Your task to perform on an android device: Open the calendar app, open the side menu, and click the "Day" option Image 0: 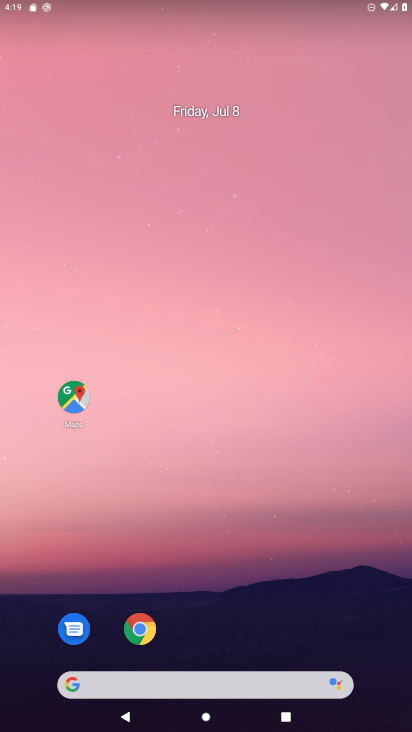
Step 0: drag from (271, 636) to (171, 42)
Your task to perform on an android device: Open the calendar app, open the side menu, and click the "Day" option Image 1: 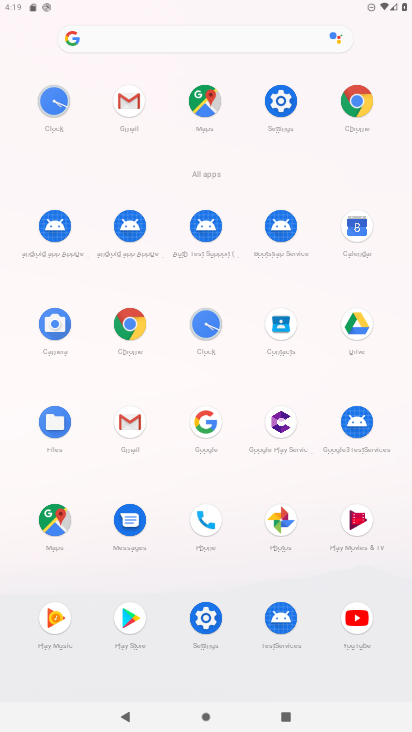
Step 1: click (280, 345)
Your task to perform on an android device: Open the calendar app, open the side menu, and click the "Day" option Image 2: 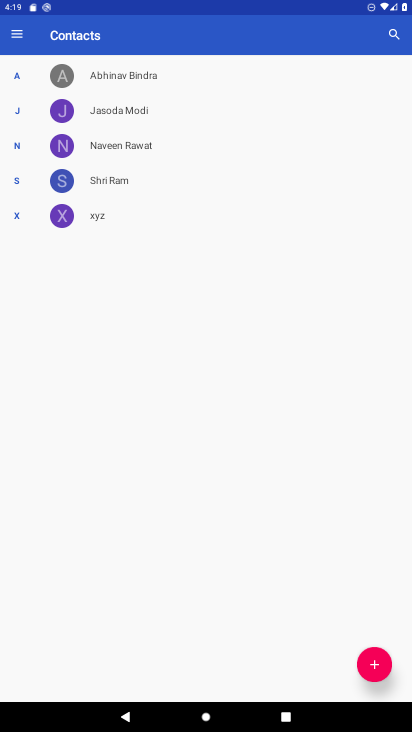
Step 2: press home button
Your task to perform on an android device: Open the calendar app, open the side menu, and click the "Day" option Image 3: 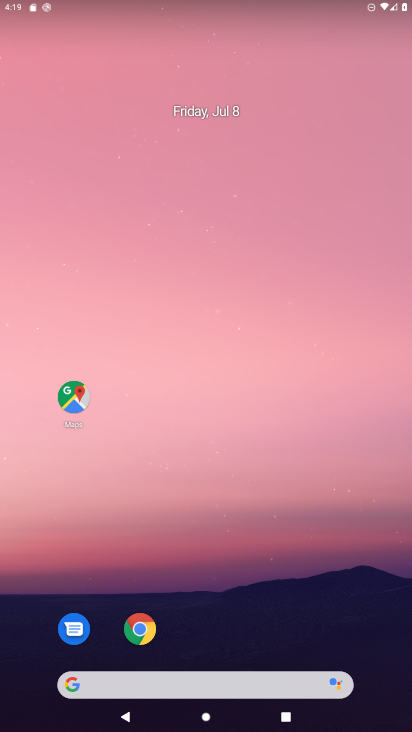
Step 3: drag from (261, 622) to (222, 384)
Your task to perform on an android device: Open the calendar app, open the side menu, and click the "Day" option Image 4: 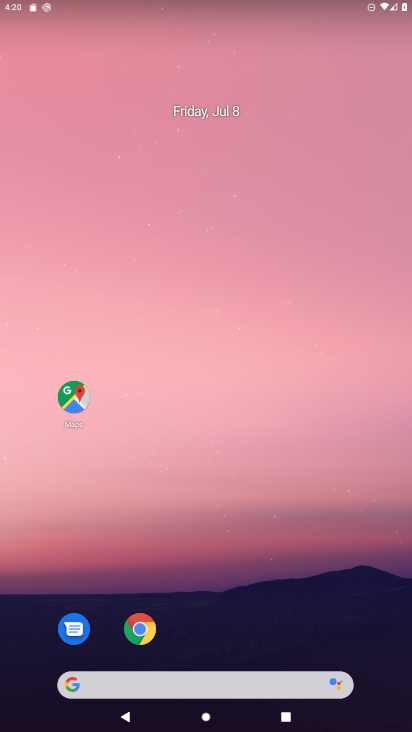
Step 4: drag from (280, 581) to (288, 50)
Your task to perform on an android device: Open the calendar app, open the side menu, and click the "Day" option Image 5: 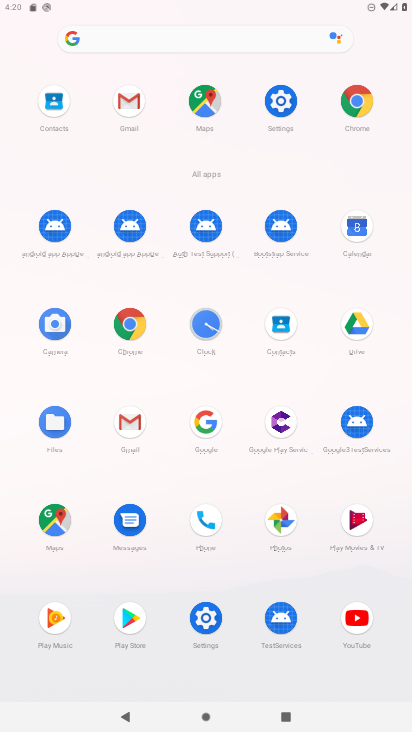
Step 5: click (365, 245)
Your task to perform on an android device: Open the calendar app, open the side menu, and click the "Day" option Image 6: 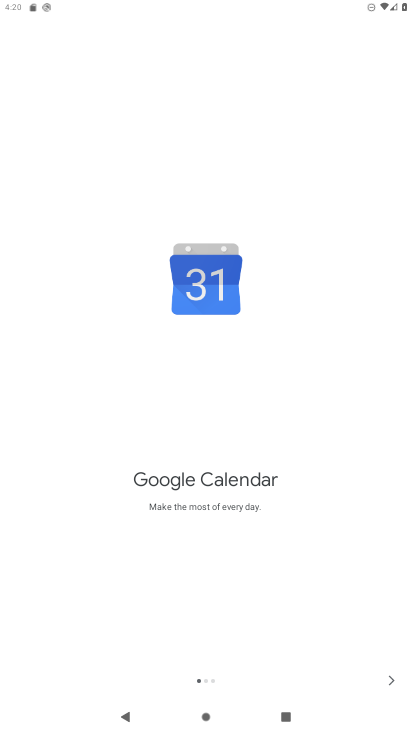
Step 6: click (379, 684)
Your task to perform on an android device: Open the calendar app, open the side menu, and click the "Day" option Image 7: 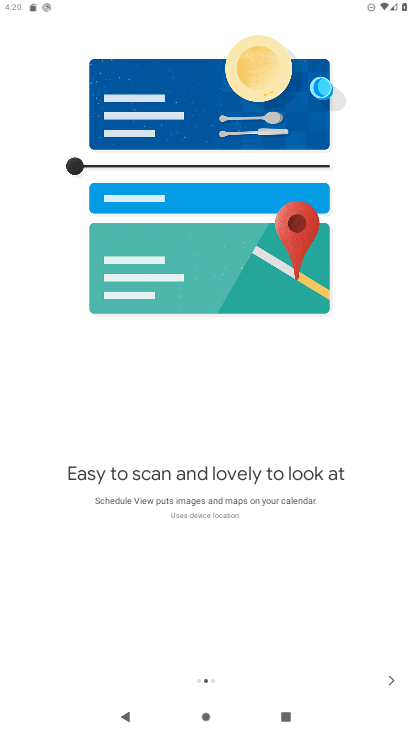
Step 7: click (380, 671)
Your task to perform on an android device: Open the calendar app, open the side menu, and click the "Day" option Image 8: 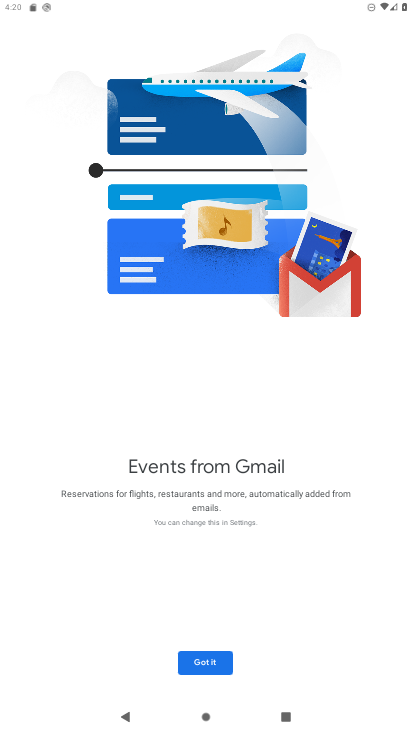
Step 8: click (201, 660)
Your task to perform on an android device: Open the calendar app, open the side menu, and click the "Day" option Image 9: 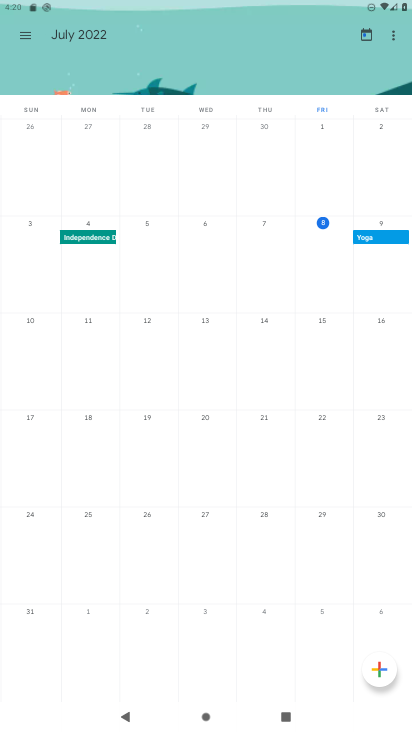
Step 9: task complete